Your task to perform on an android device: change your default location settings in chrome Image 0: 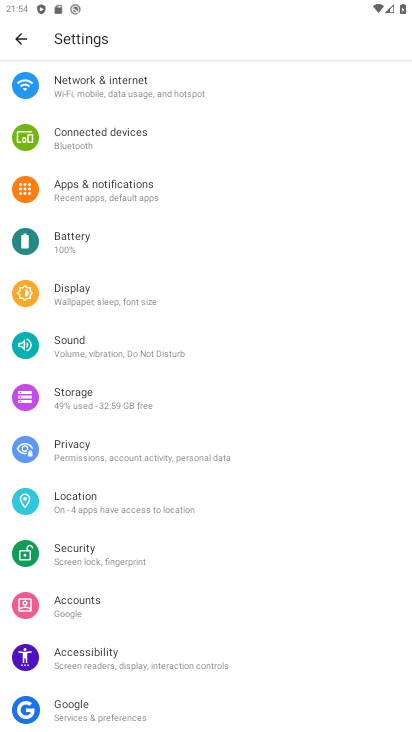
Step 0: press home button
Your task to perform on an android device: change your default location settings in chrome Image 1: 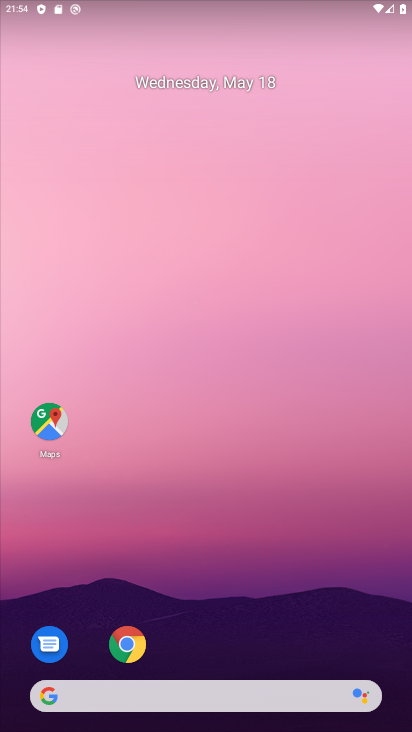
Step 1: click (125, 646)
Your task to perform on an android device: change your default location settings in chrome Image 2: 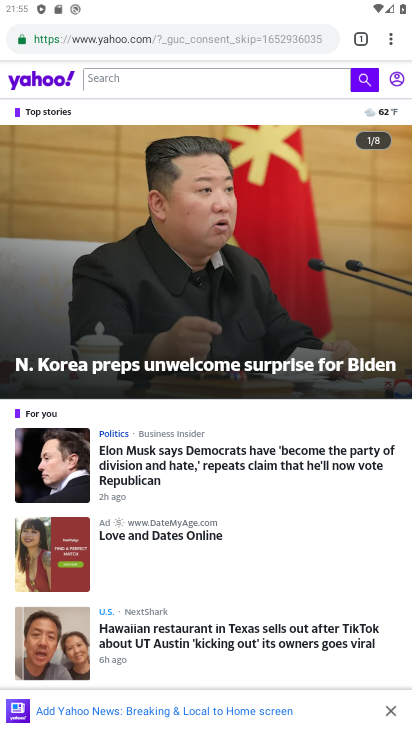
Step 2: drag from (402, 37) to (249, 481)
Your task to perform on an android device: change your default location settings in chrome Image 3: 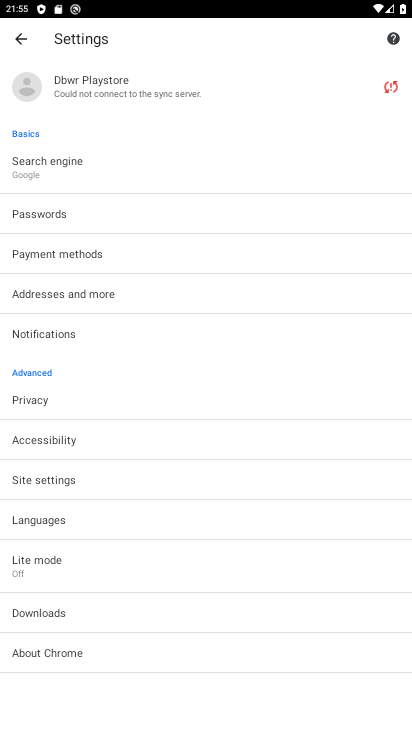
Step 3: click (124, 181)
Your task to perform on an android device: change your default location settings in chrome Image 4: 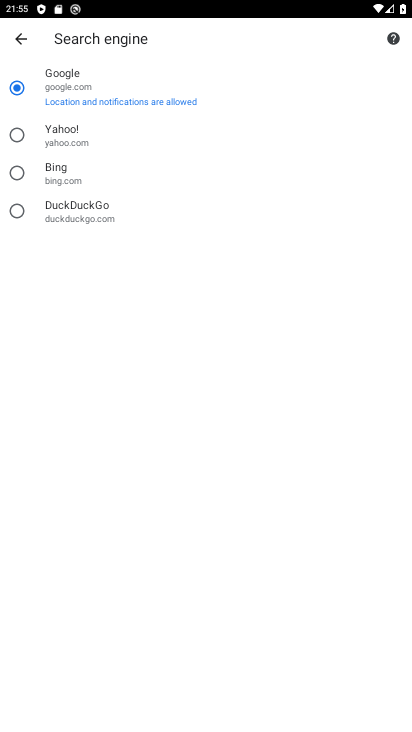
Step 4: click (25, 40)
Your task to perform on an android device: change your default location settings in chrome Image 5: 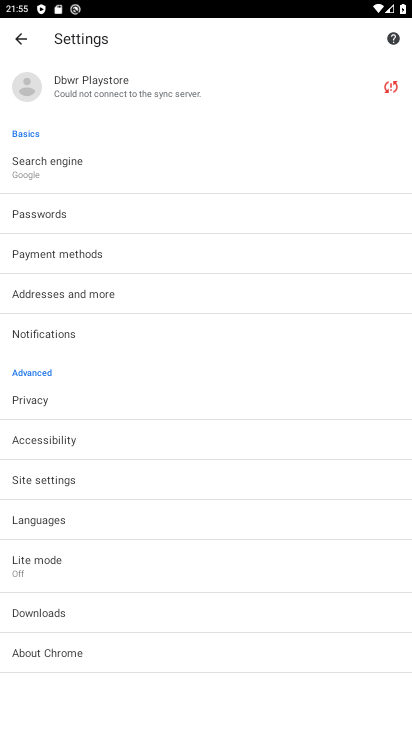
Step 5: click (89, 480)
Your task to perform on an android device: change your default location settings in chrome Image 6: 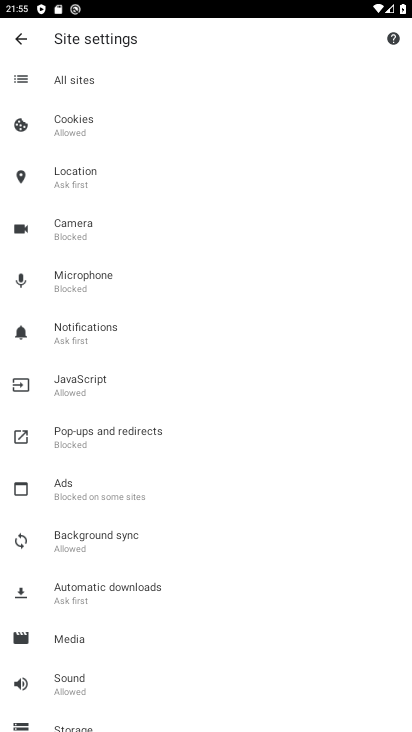
Step 6: click (88, 182)
Your task to perform on an android device: change your default location settings in chrome Image 7: 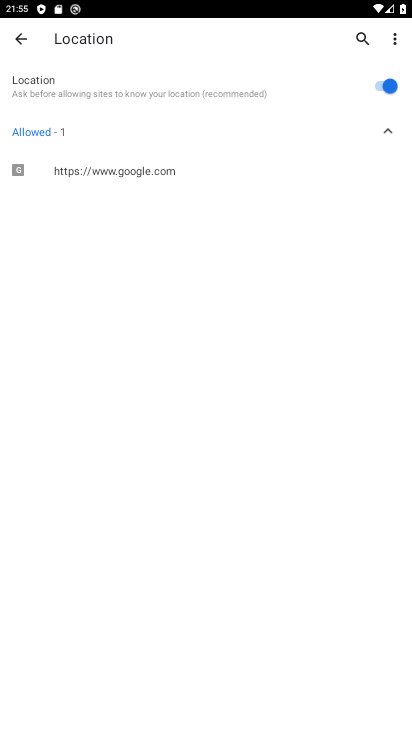
Step 7: click (377, 73)
Your task to perform on an android device: change your default location settings in chrome Image 8: 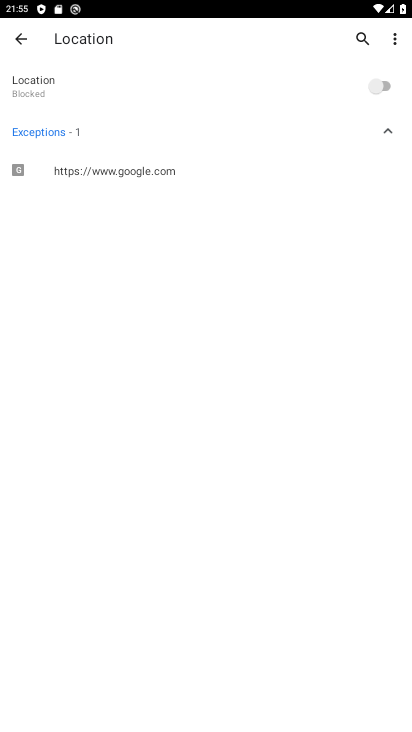
Step 8: task complete